Your task to perform on an android device: Go to sound settings Image 0: 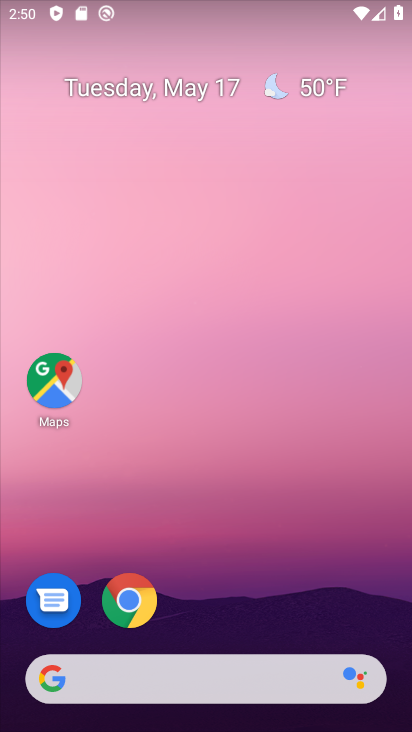
Step 0: drag from (277, 577) to (343, 65)
Your task to perform on an android device: Go to sound settings Image 1: 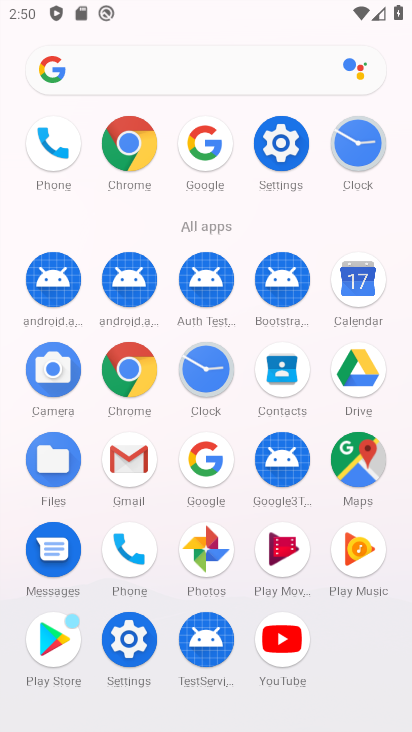
Step 1: click (270, 157)
Your task to perform on an android device: Go to sound settings Image 2: 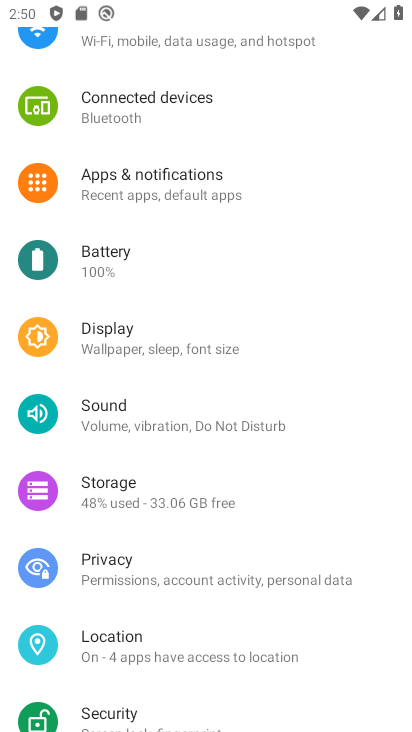
Step 2: click (186, 417)
Your task to perform on an android device: Go to sound settings Image 3: 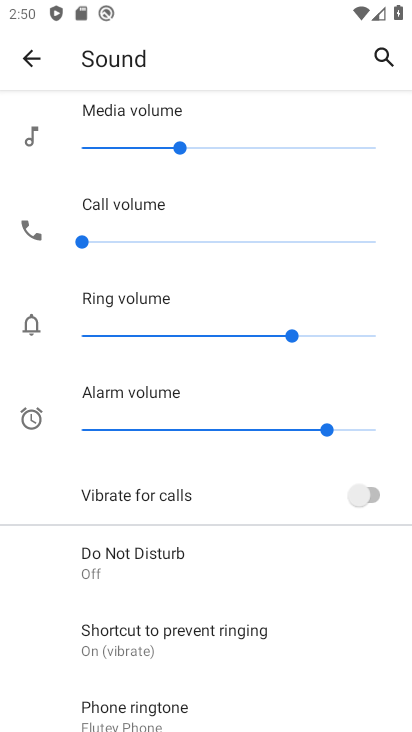
Step 3: task complete